Your task to perform on an android device: find snoozed emails in the gmail app Image 0: 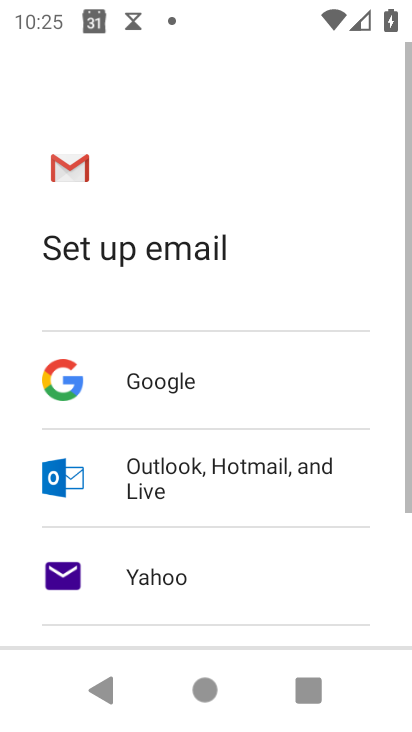
Step 0: press home button
Your task to perform on an android device: find snoozed emails in the gmail app Image 1: 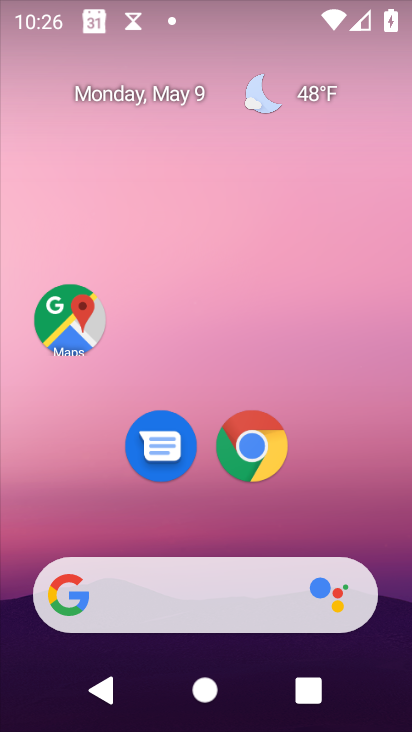
Step 1: drag from (316, 505) to (304, 21)
Your task to perform on an android device: find snoozed emails in the gmail app Image 2: 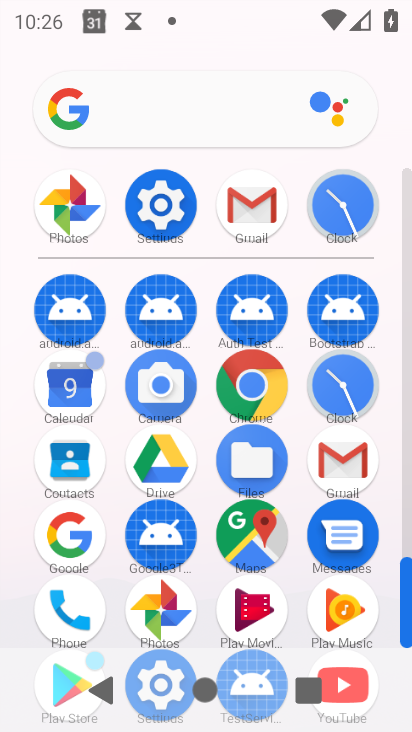
Step 2: click (242, 217)
Your task to perform on an android device: find snoozed emails in the gmail app Image 3: 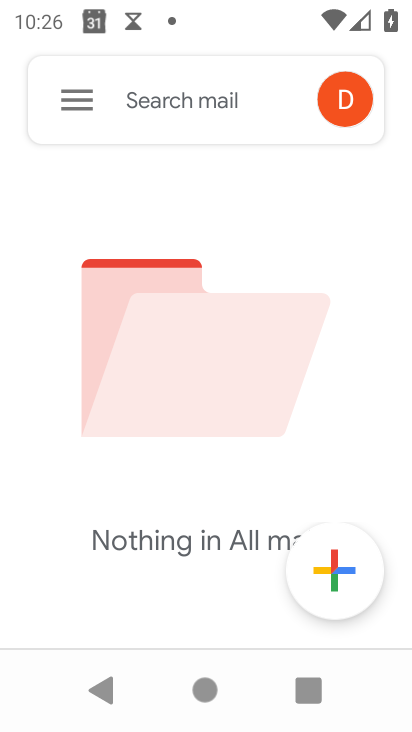
Step 3: click (65, 108)
Your task to perform on an android device: find snoozed emails in the gmail app Image 4: 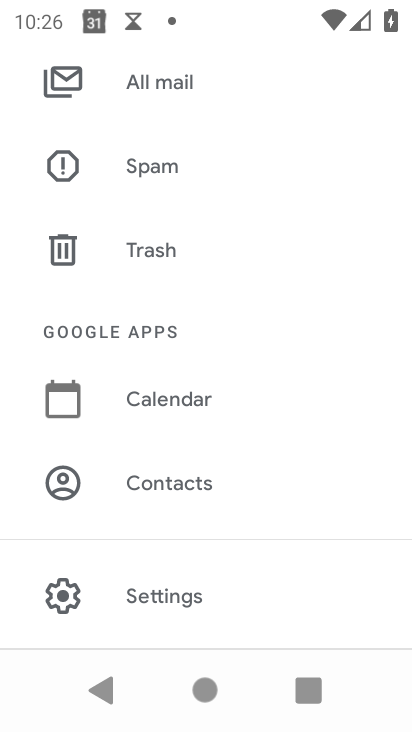
Step 4: drag from (191, 140) to (160, 583)
Your task to perform on an android device: find snoozed emails in the gmail app Image 5: 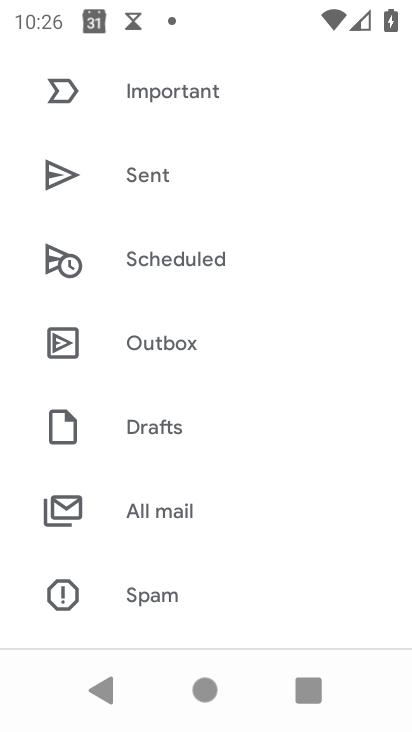
Step 5: drag from (238, 154) to (239, 476)
Your task to perform on an android device: find snoozed emails in the gmail app Image 6: 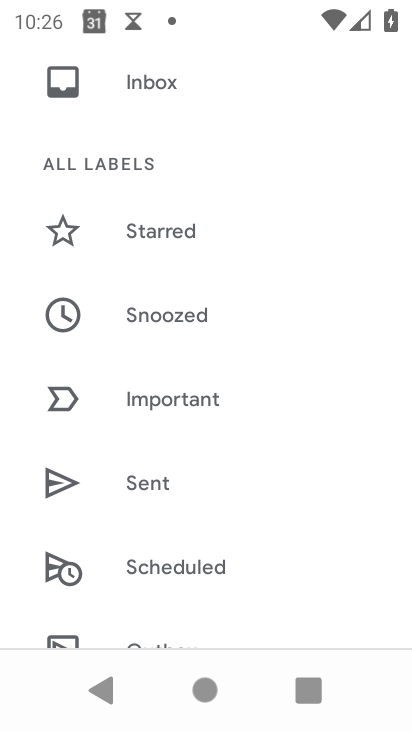
Step 6: click (192, 317)
Your task to perform on an android device: find snoozed emails in the gmail app Image 7: 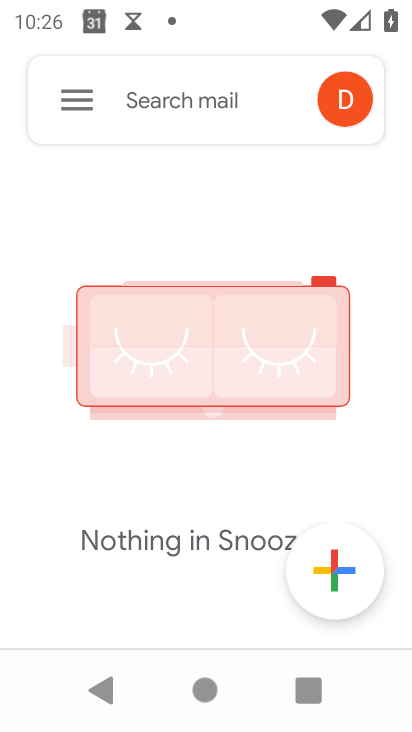
Step 7: task complete